Your task to perform on an android device: move an email to a new category in the gmail app Image 0: 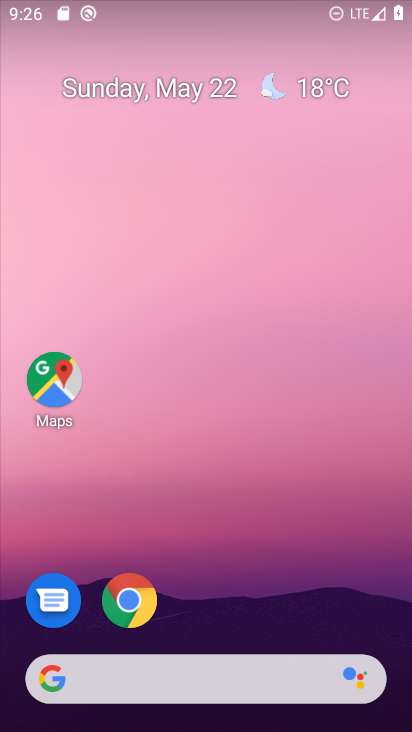
Step 0: drag from (379, 598) to (276, 42)
Your task to perform on an android device: move an email to a new category in the gmail app Image 1: 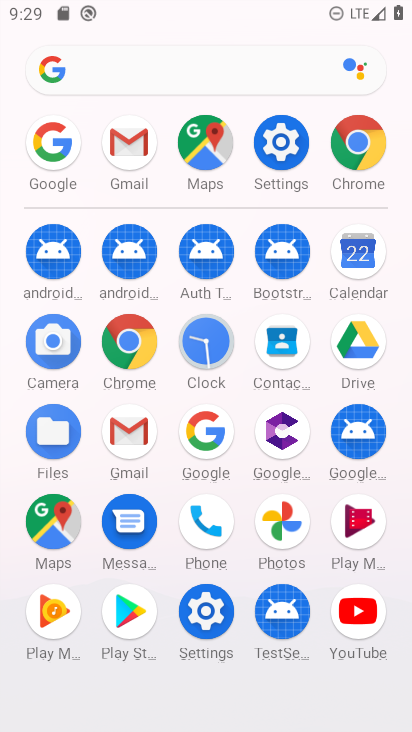
Step 1: click (128, 440)
Your task to perform on an android device: move an email to a new category in the gmail app Image 2: 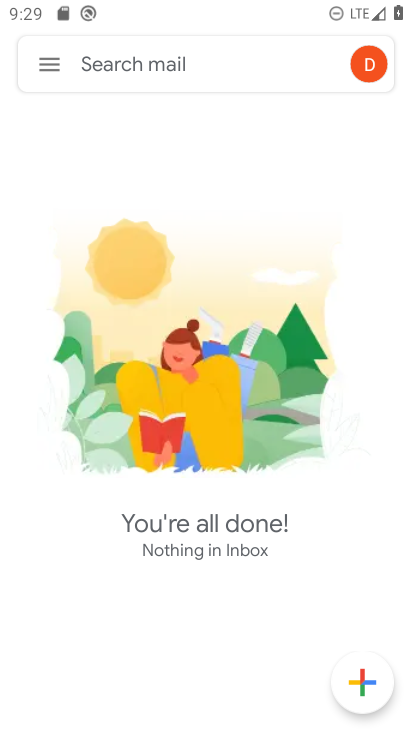
Step 2: task complete